Your task to perform on an android device: Empty the shopping cart on costco.com. Add "razer huntsman" to the cart on costco.com Image 0: 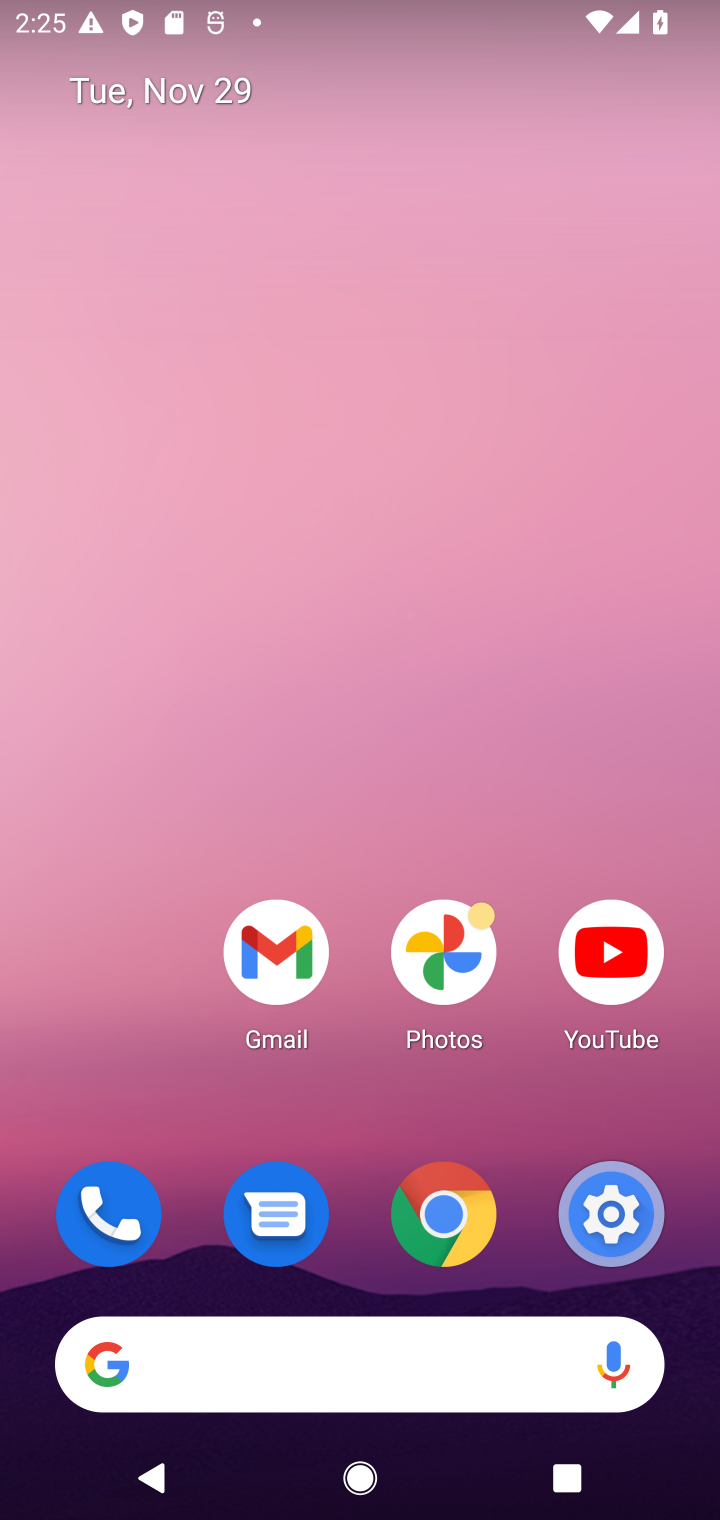
Step 0: click (332, 1404)
Your task to perform on an android device: Empty the shopping cart on costco.com. Add "razer huntsman" to the cart on costco.com Image 1: 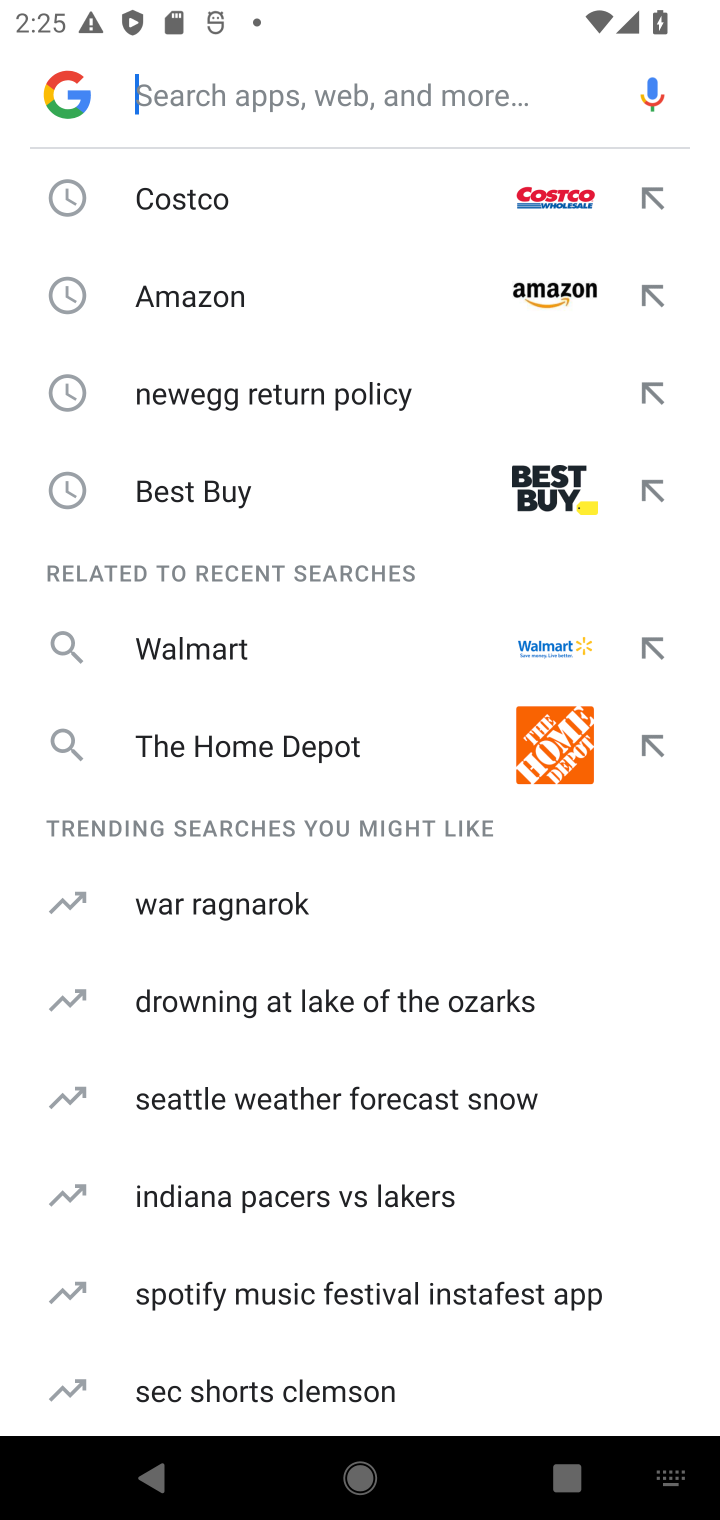
Step 1: type "costco"
Your task to perform on an android device: Empty the shopping cart on costco.com. Add "razer huntsman" to the cart on costco.com Image 2: 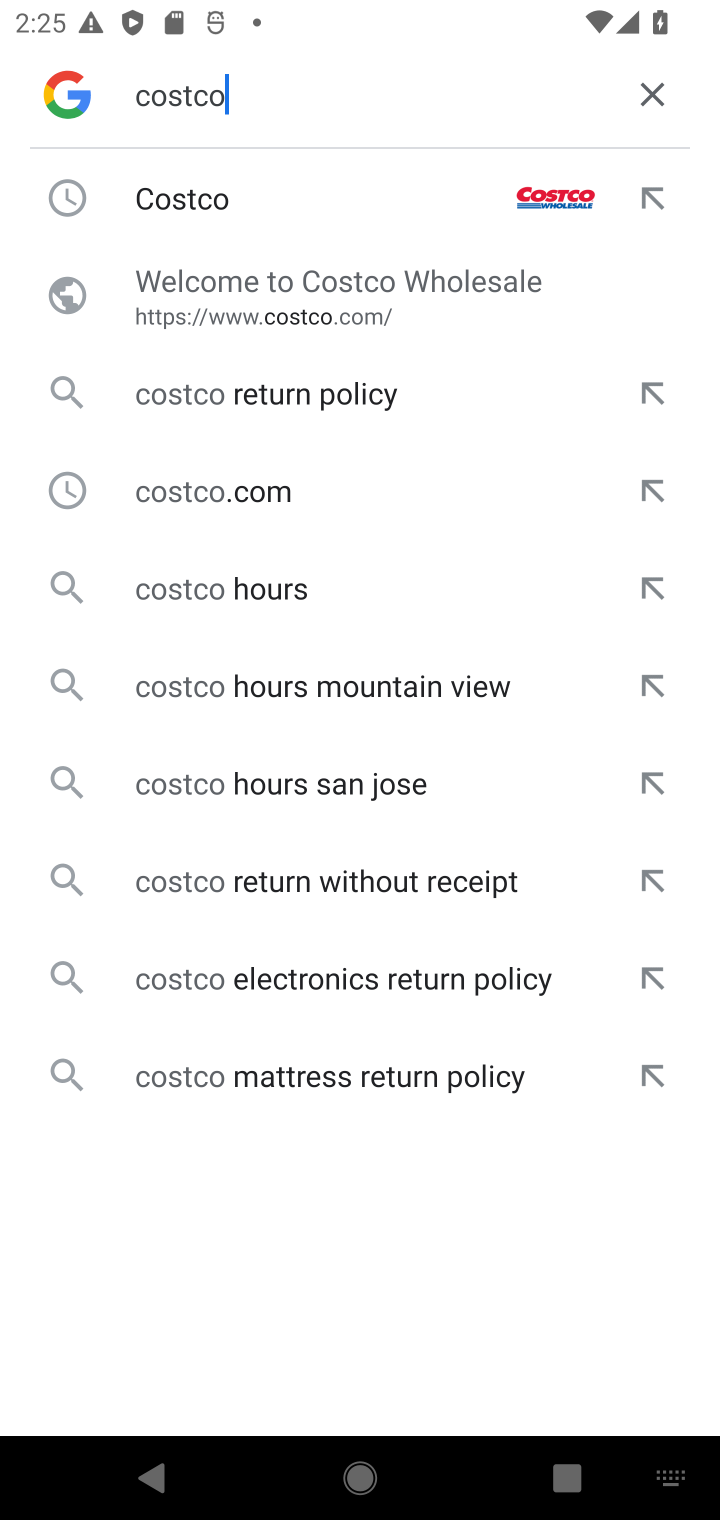
Step 2: click (202, 210)
Your task to perform on an android device: Empty the shopping cart on costco.com. Add "razer huntsman" to the cart on costco.com Image 3: 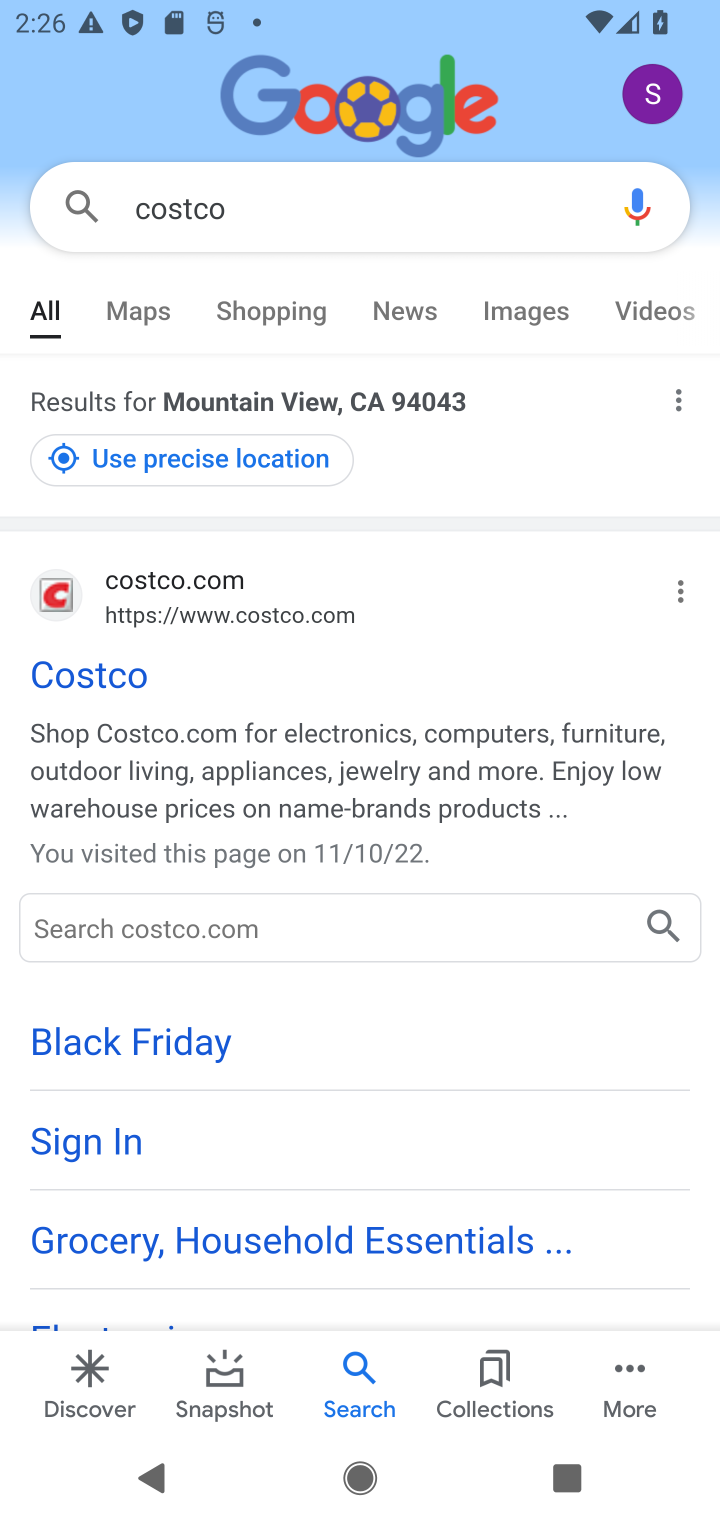
Step 3: click (72, 660)
Your task to perform on an android device: Empty the shopping cart on costco.com. Add "razer huntsman" to the cart on costco.com Image 4: 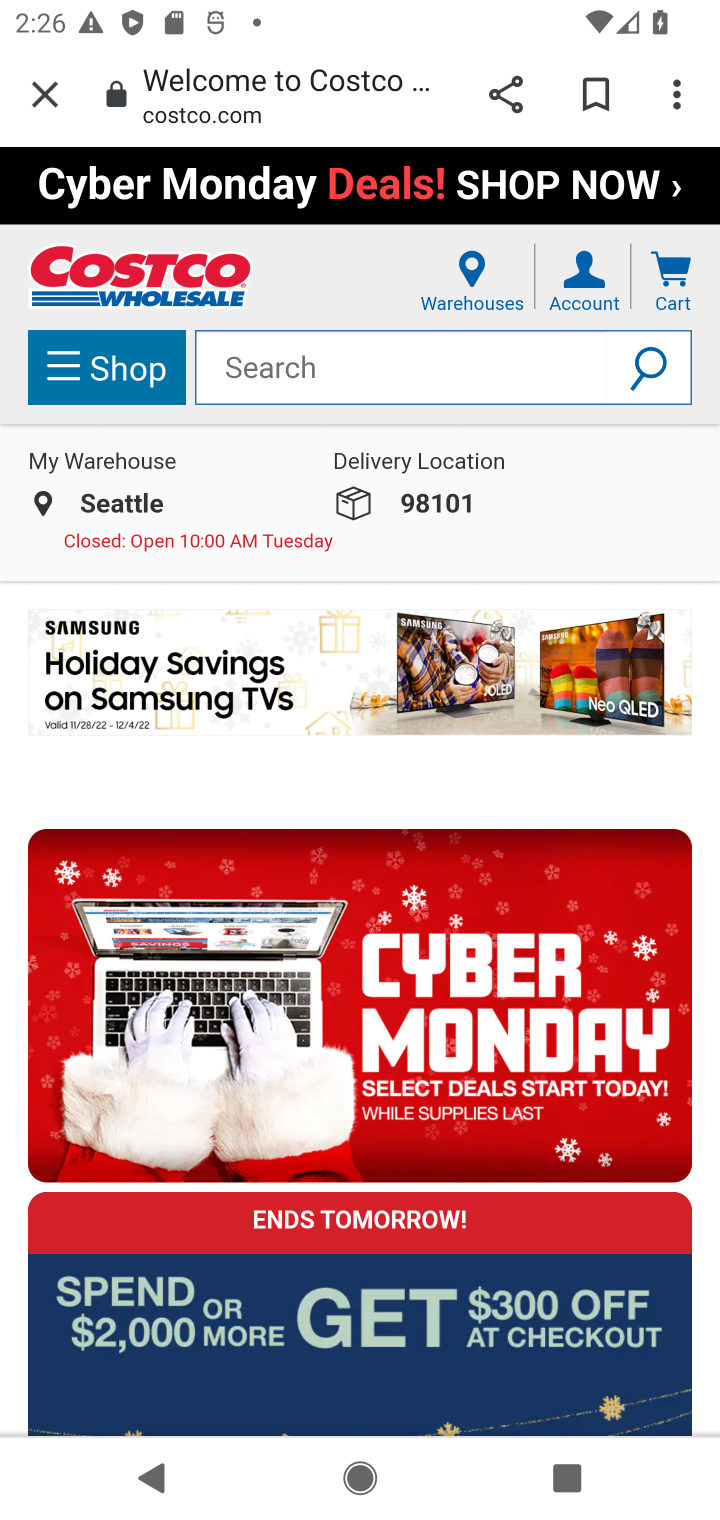
Step 4: click (413, 371)
Your task to perform on an android device: Empty the shopping cart on costco.com. Add "razer huntsman" to the cart on costco.com Image 5: 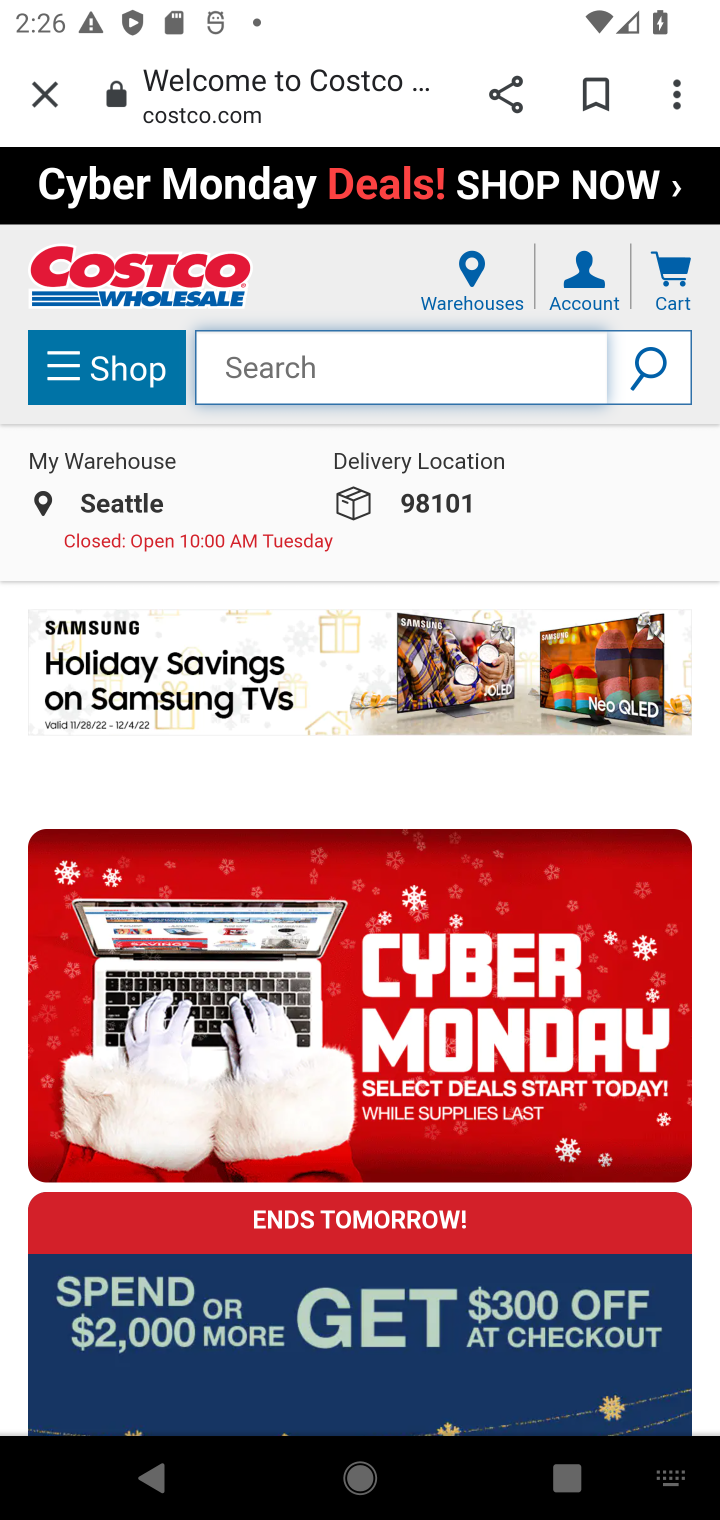
Step 5: type "costco"
Your task to perform on an android device: Empty the shopping cart on costco.com. Add "razer huntsman" to the cart on costco.com Image 6: 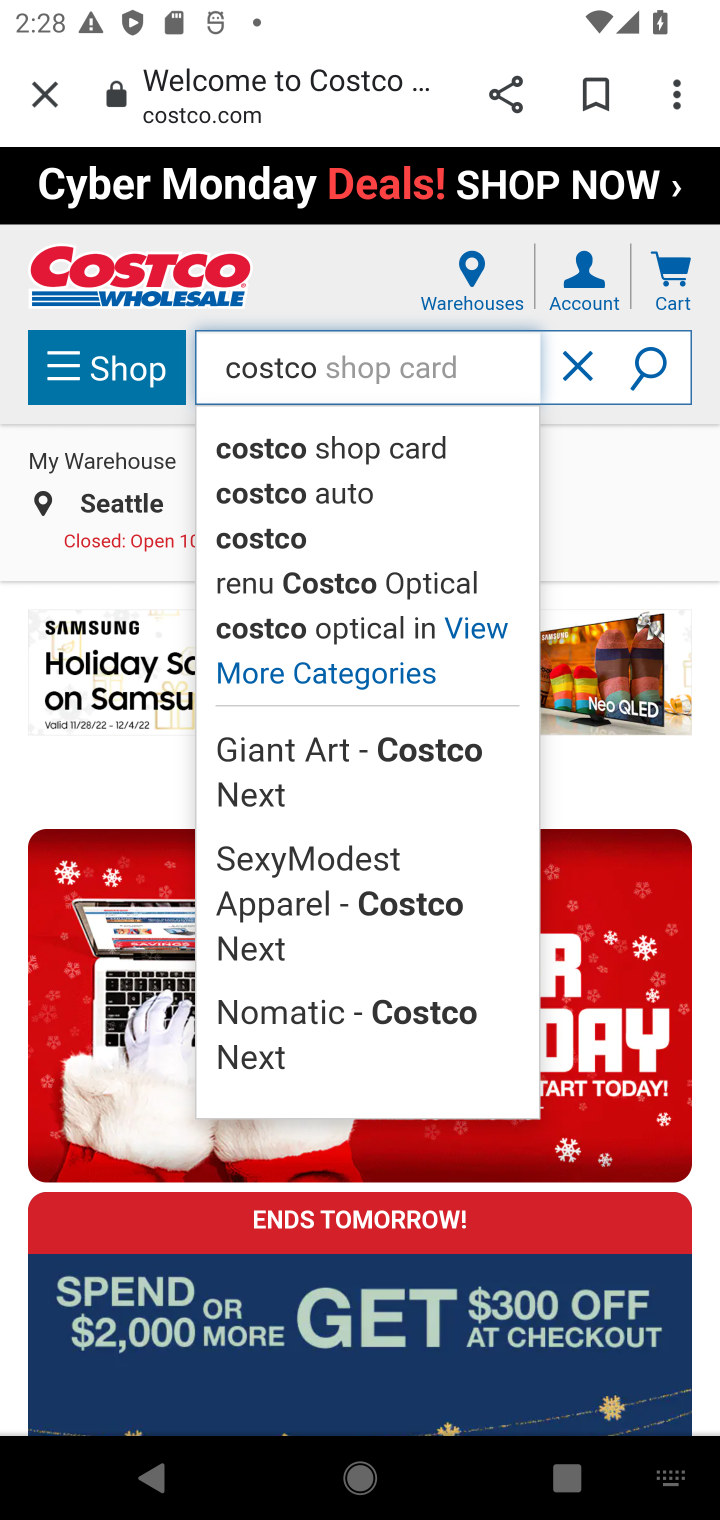
Step 6: task complete